Your task to perform on an android device: toggle airplane mode Image 0: 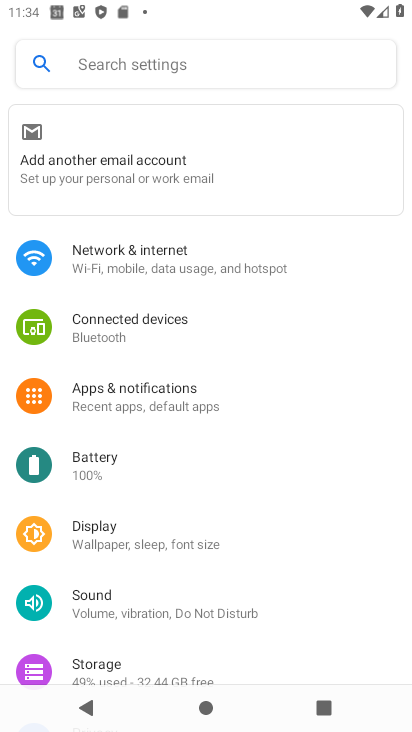
Step 0: press home button
Your task to perform on an android device: toggle airplane mode Image 1: 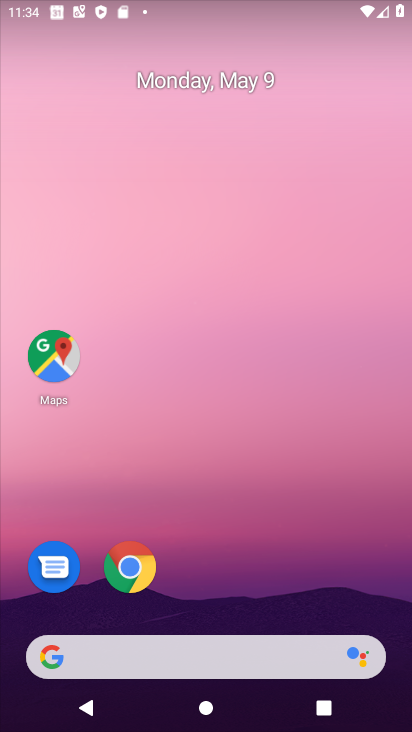
Step 1: drag from (175, 5) to (222, 463)
Your task to perform on an android device: toggle airplane mode Image 2: 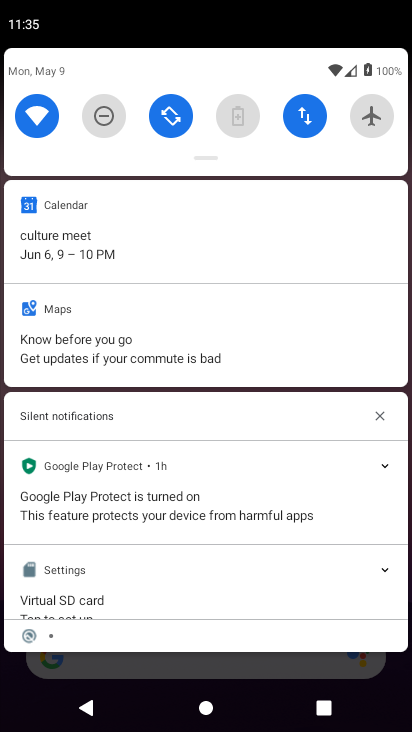
Step 2: click (383, 127)
Your task to perform on an android device: toggle airplane mode Image 3: 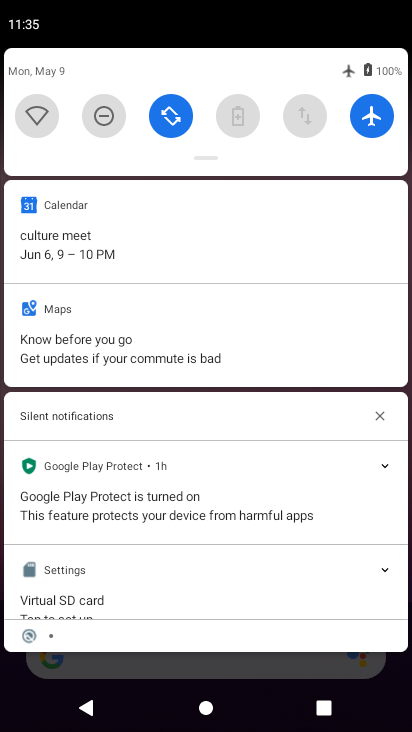
Step 3: task complete